Your task to perform on an android device: Go to Amazon Image 0: 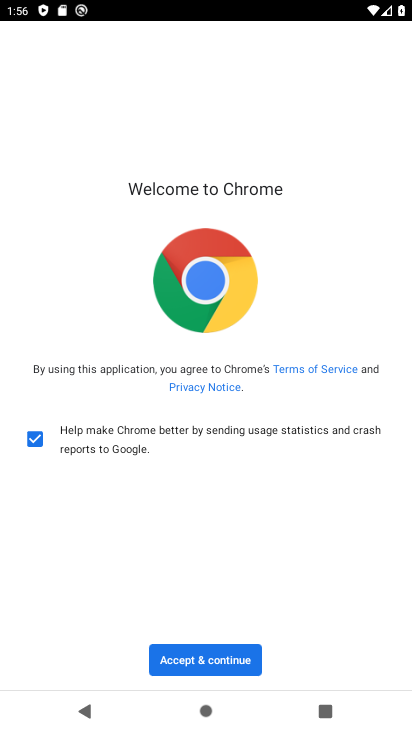
Step 0: click (195, 653)
Your task to perform on an android device: Go to Amazon Image 1: 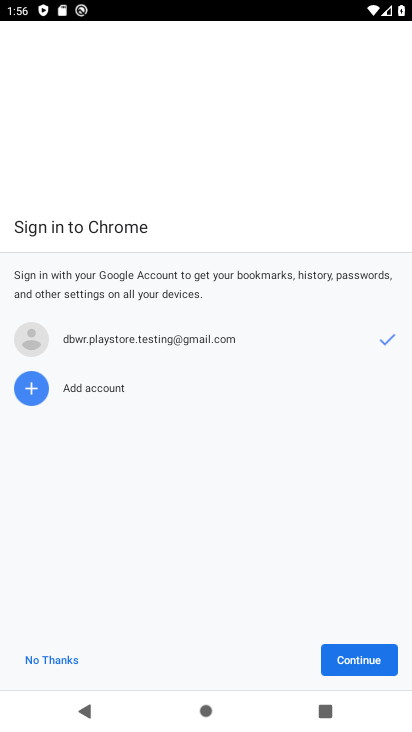
Step 1: click (343, 664)
Your task to perform on an android device: Go to Amazon Image 2: 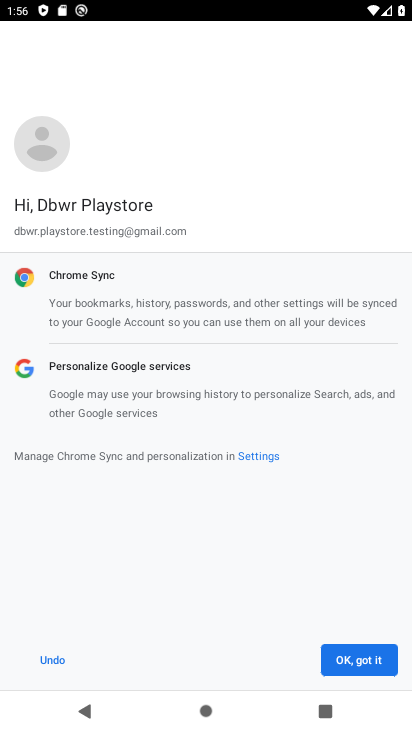
Step 2: click (360, 653)
Your task to perform on an android device: Go to Amazon Image 3: 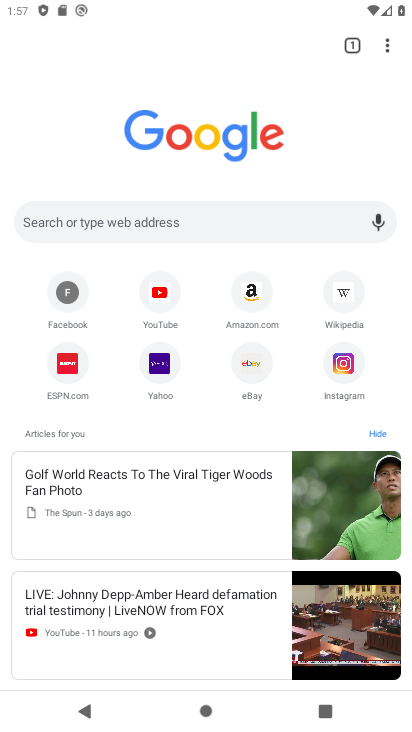
Step 3: click (247, 289)
Your task to perform on an android device: Go to Amazon Image 4: 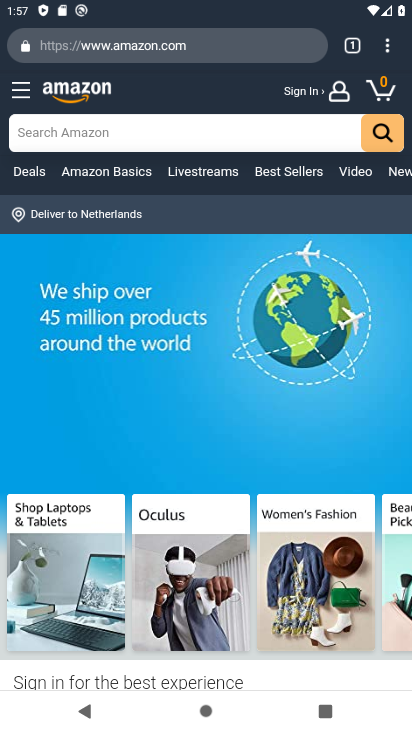
Step 4: task complete